Your task to perform on an android device: open app "Etsy: Buy & Sell Unique Items" (install if not already installed), go to login, and select forgot password Image 0: 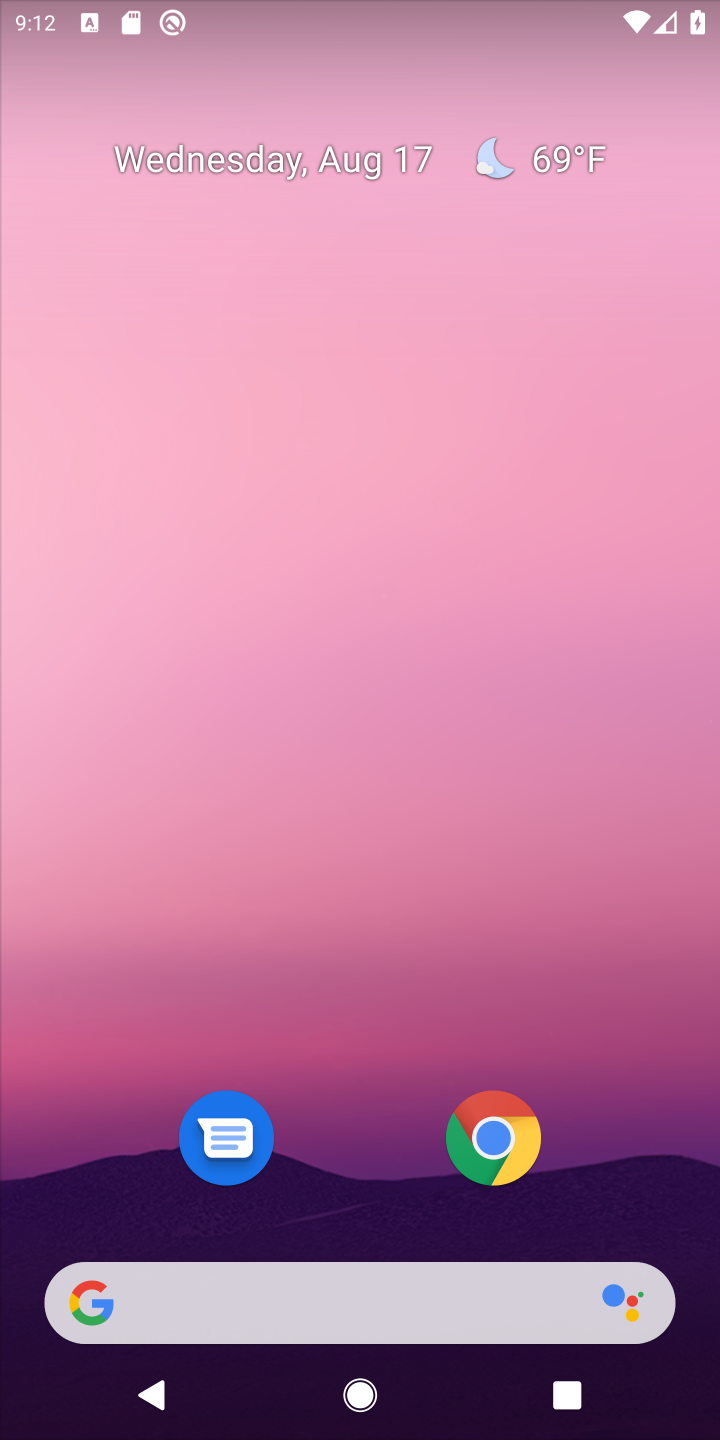
Step 0: drag from (335, 1243) to (377, 397)
Your task to perform on an android device: open app "Etsy: Buy & Sell Unique Items" (install if not already installed), go to login, and select forgot password Image 1: 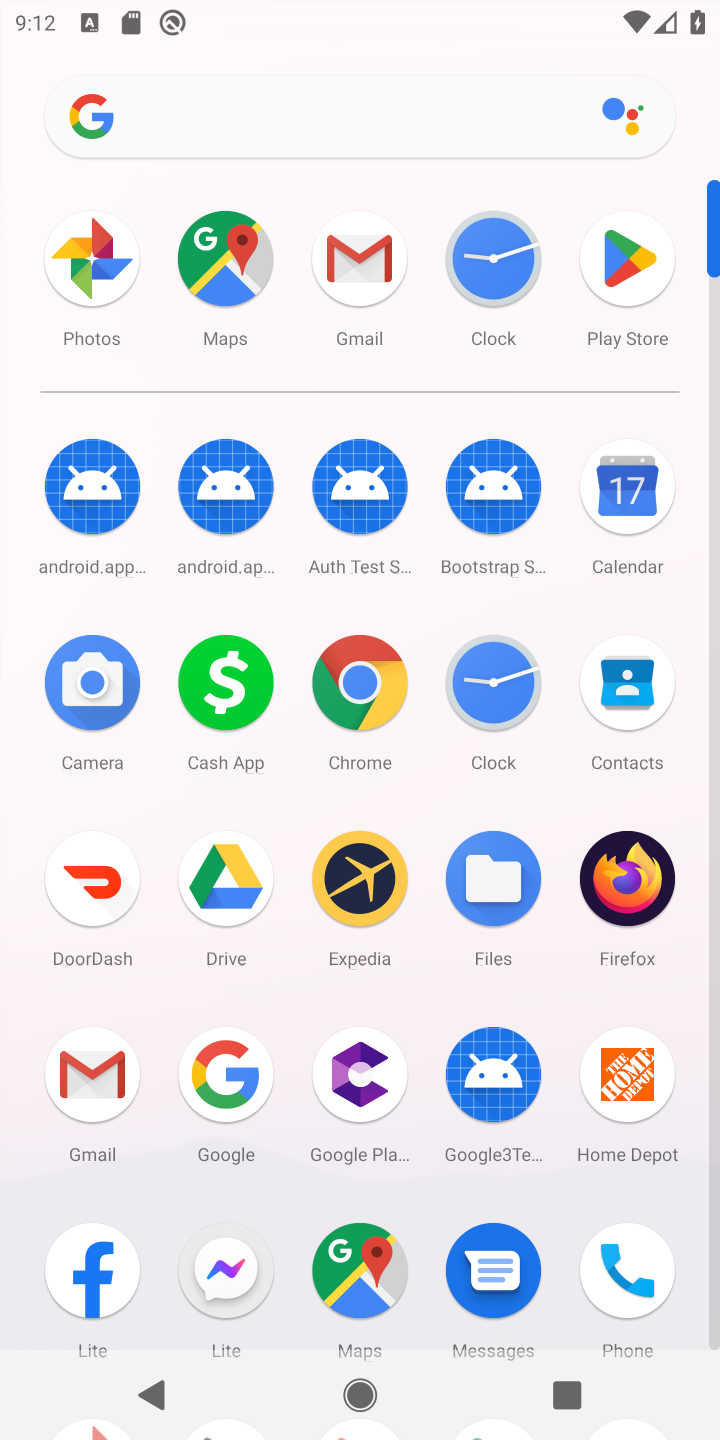
Step 1: click (638, 278)
Your task to perform on an android device: open app "Etsy: Buy & Sell Unique Items" (install if not already installed), go to login, and select forgot password Image 2: 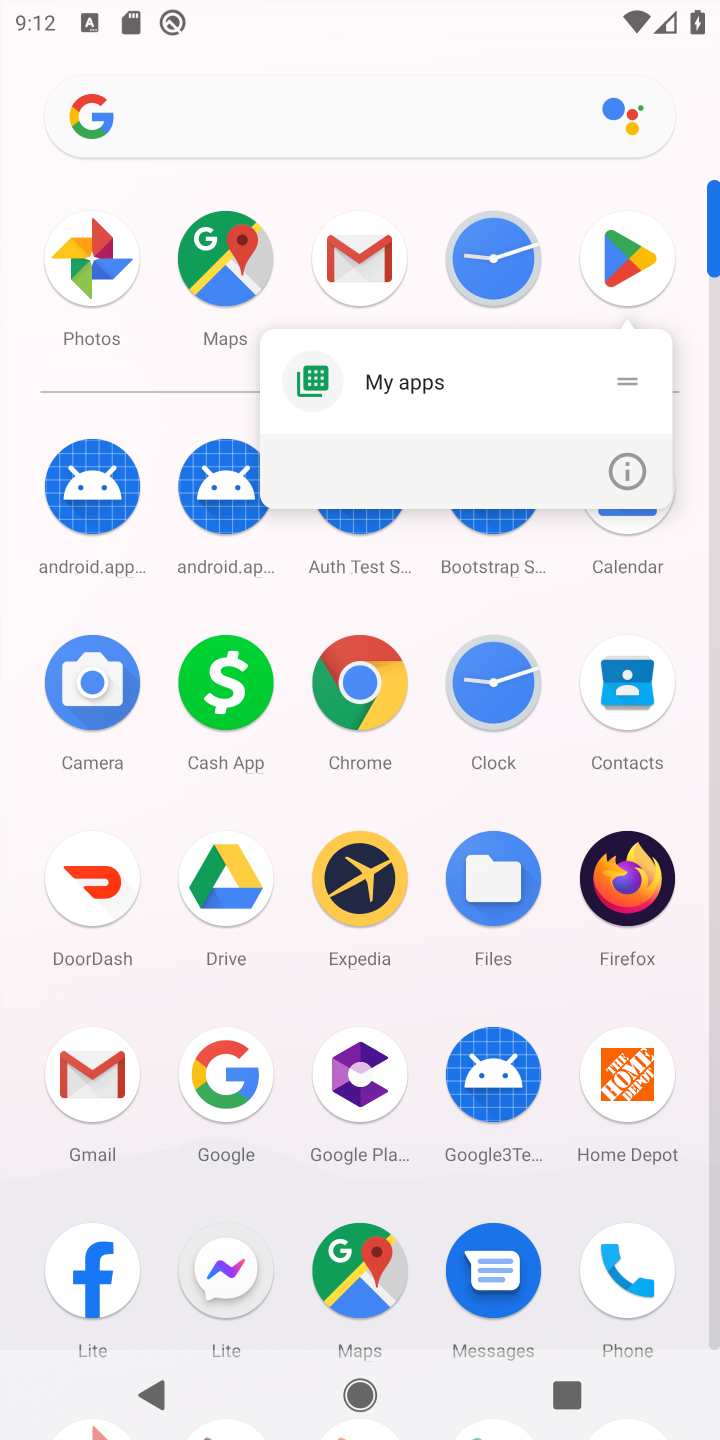
Step 2: click (627, 278)
Your task to perform on an android device: open app "Etsy: Buy & Sell Unique Items" (install if not already installed), go to login, and select forgot password Image 3: 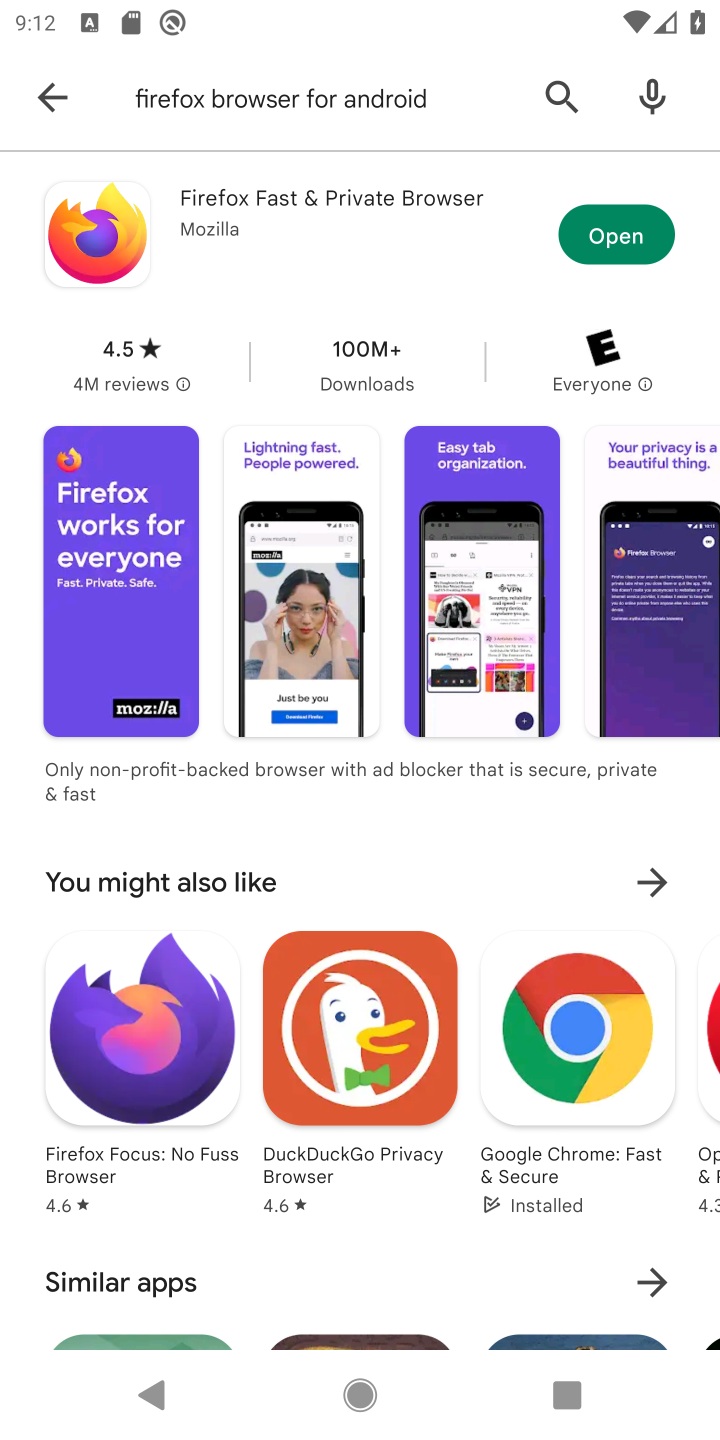
Step 3: click (51, 85)
Your task to perform on an android device: open app "Etsy: Buy & Sell Unique Items" (install if not already installed), go to login, and select forgot password Image 4: 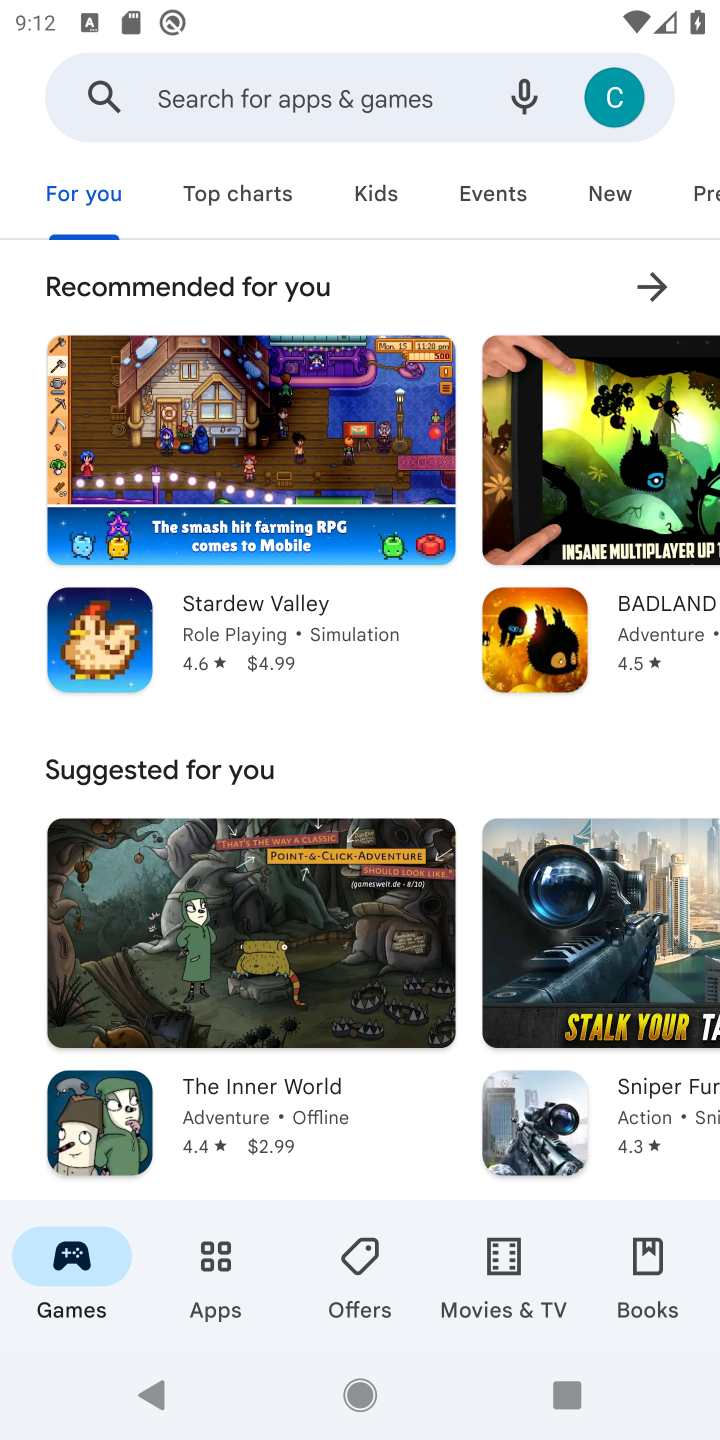
Step 4: click (331, 79)
Your task to perform on an android device: open app "Etsy: Buy & Sell Unique Items" (install if not already installed), go to login, and select forgot password Image 5: 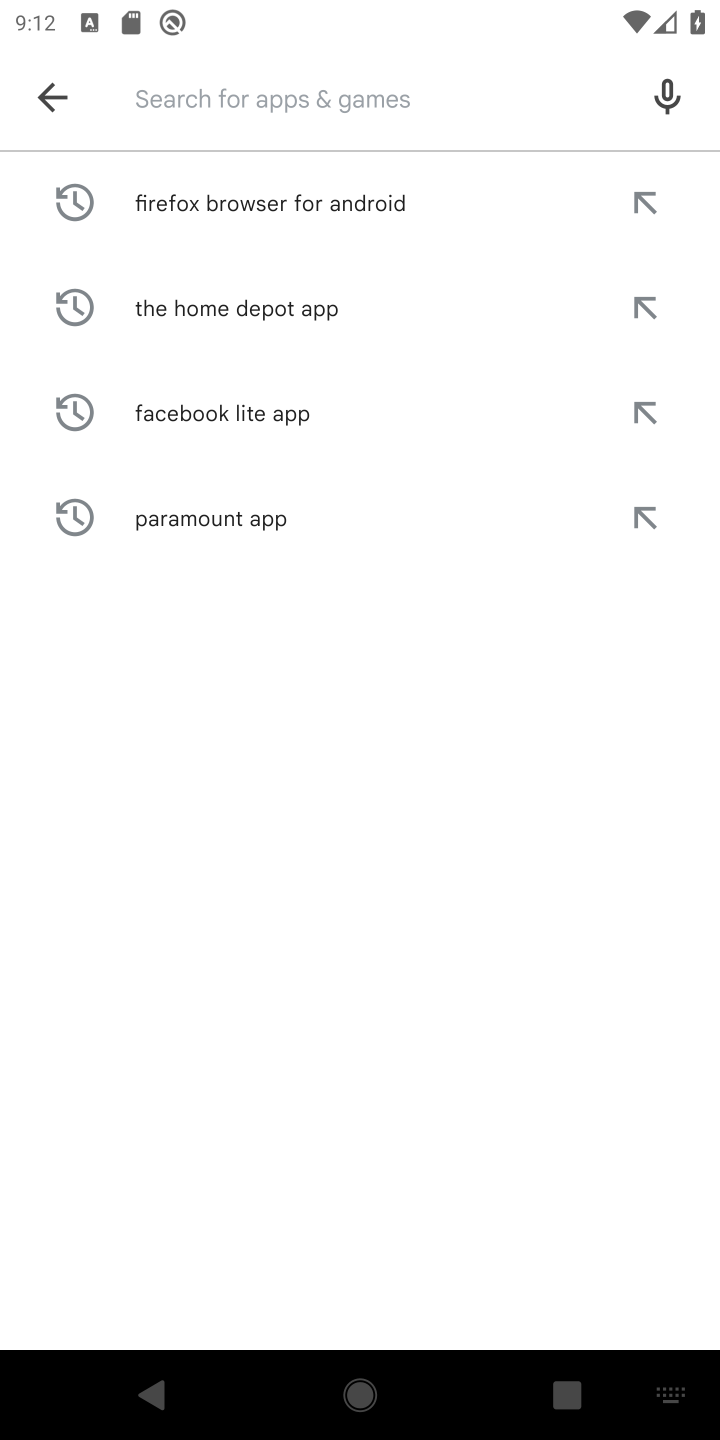
Step 5: type "Etsy: Buy & Sell Unique Items "
Your task to perform on an android device: open app "Etsy: Buy & Sell Unique Items" (install if not already installed), go to login, and select forgot password Image 6: 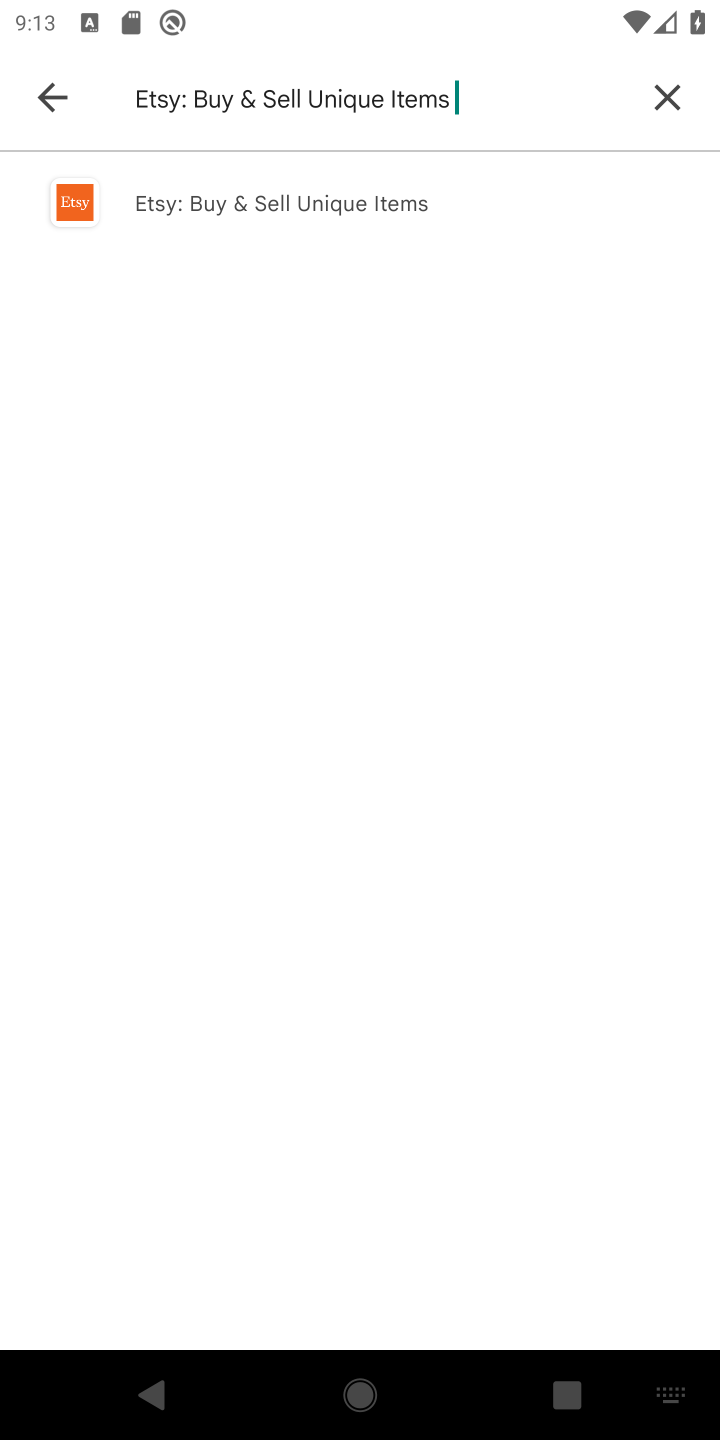
Step 6: click (263, 218)
Your task to perform on an android device: open app "Etsy: Buy & Sell Unique Items" (install if not already installed), go to login, and select forgot password Image 7: 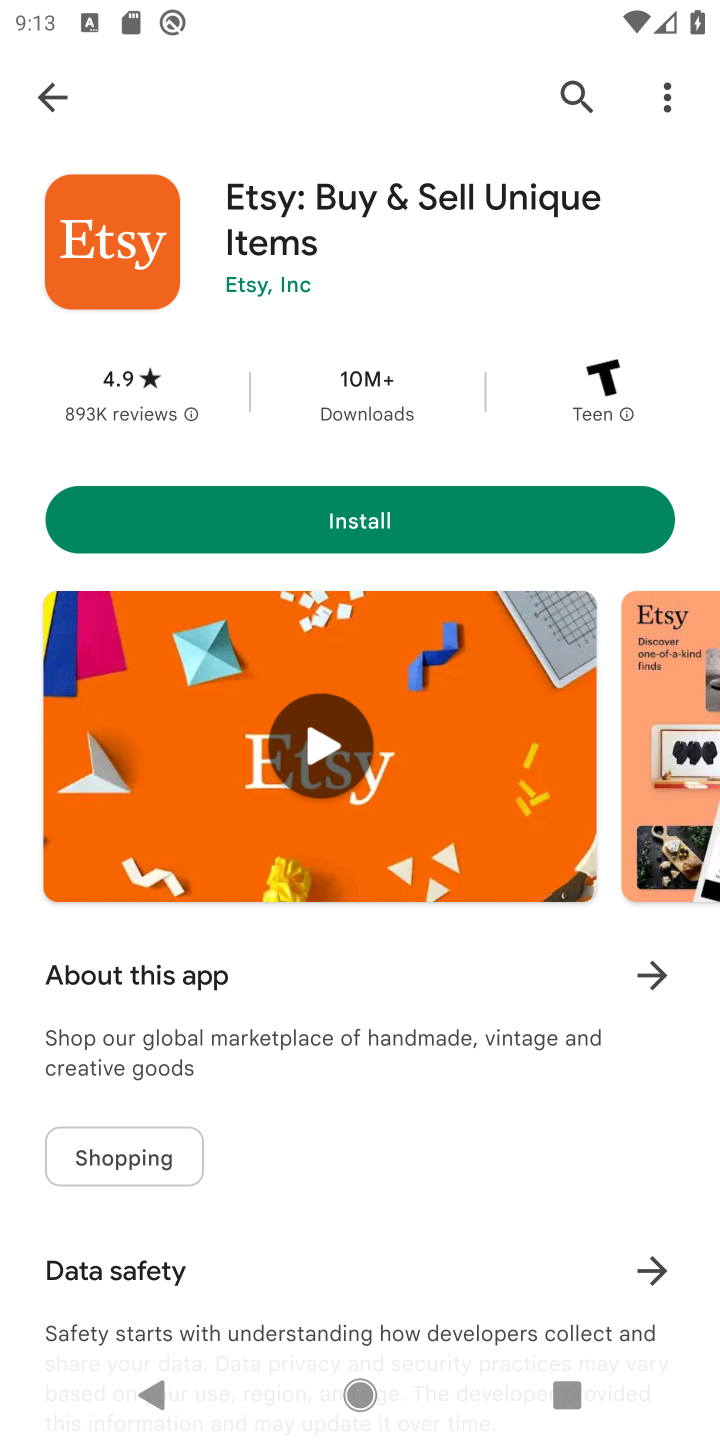
Step 7: click (421, 522)
Your task to perform on an android device: open app "Etsy: Buy & Sell Unique Items" (install if not already installed), go to login, and select forgot password Image 8: 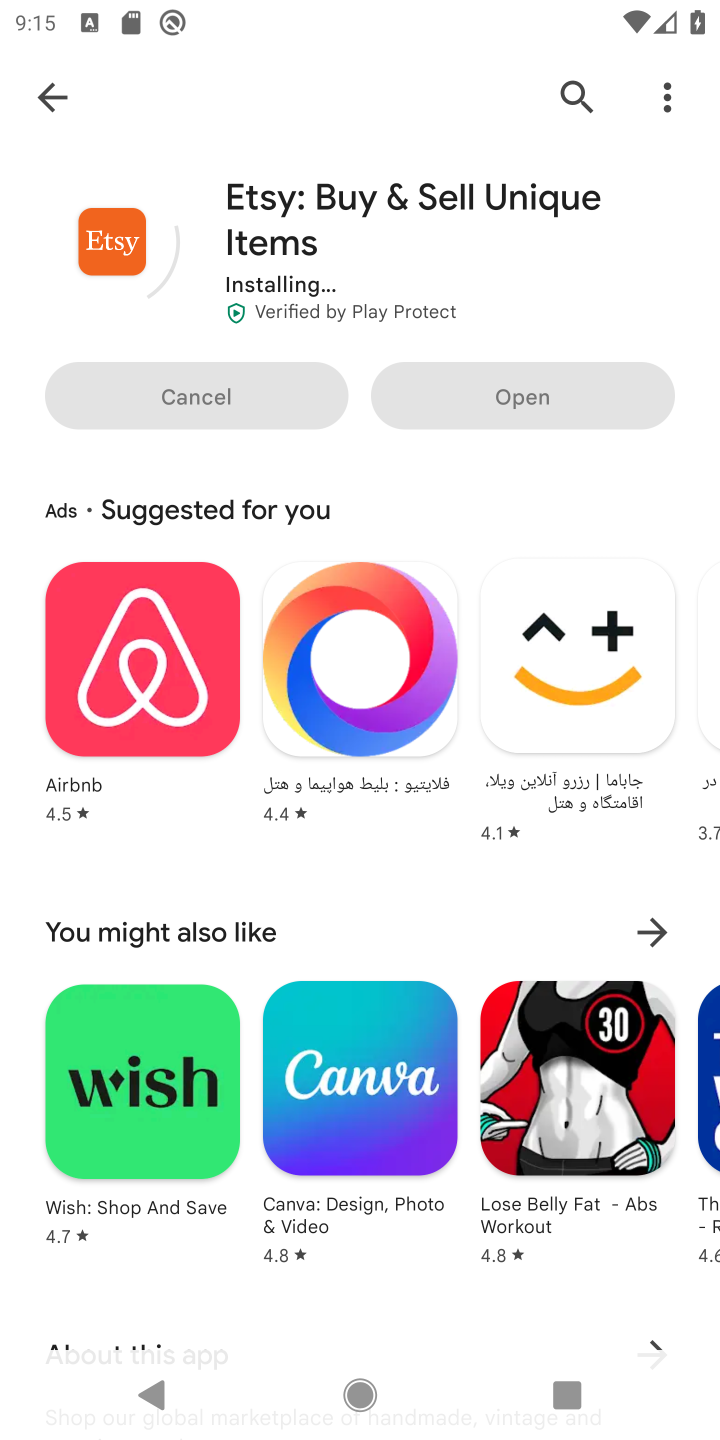
Step 8: task complete